Your task to perform on an android device: What's on my calendar today? Image 0: 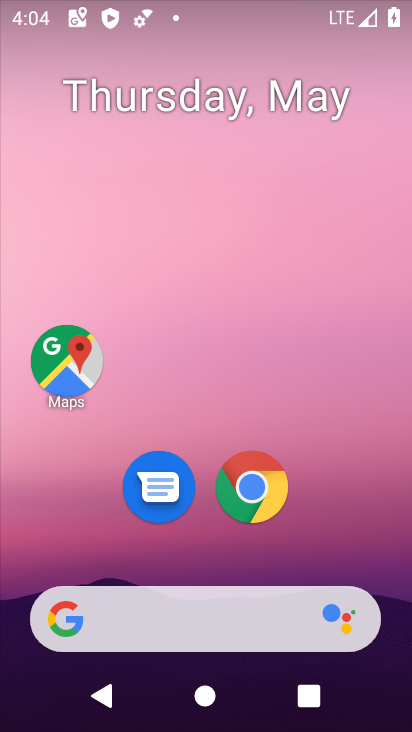
Step 0: drag from (235, 517) to (286, 95)
Your task to perform on an android device: What's on my calendar today? Image 1: 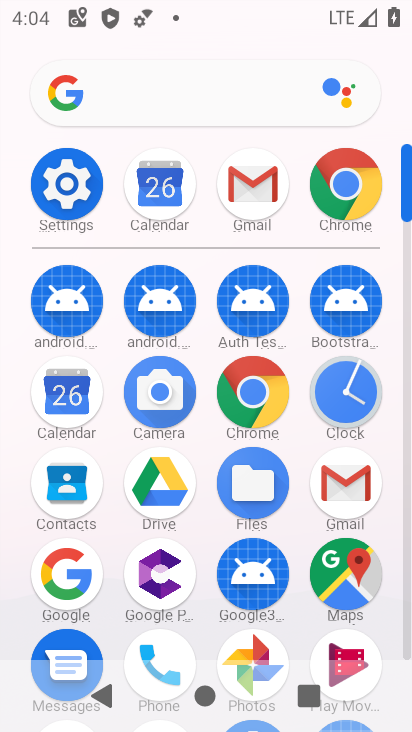
Step 1: click (66, 398)
Your task to perform on an android device: What's on my calendar today? Image 2: 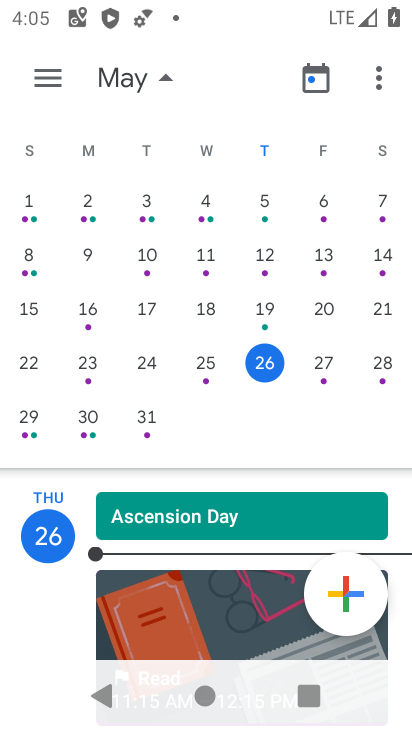
Step 2: task complete